Your task to perform on an android device: turn notification dots on Image 0: 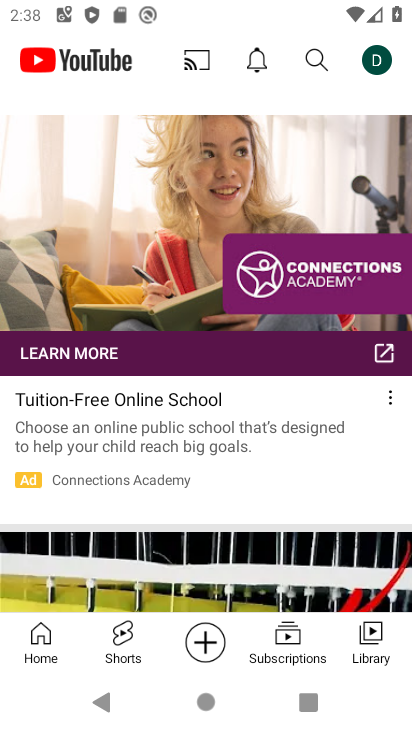
Step 0: press home button
Your task to perform on an android device: turn notification dots on Image 1: 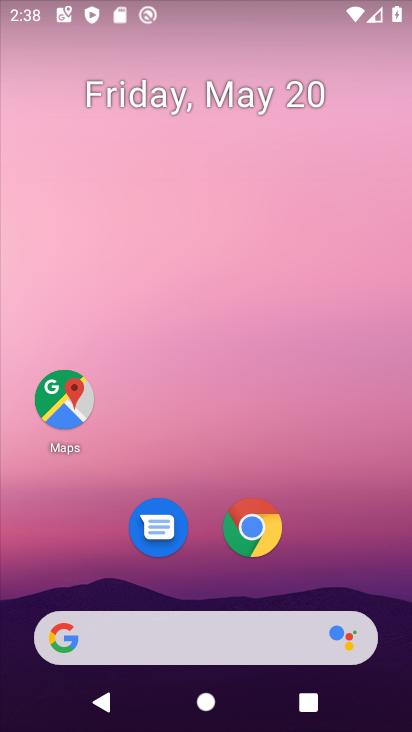
Step 1: drag from (239, 599) to (397, 133)
Your task to perform on an android device: turn notification dots on Image 2: 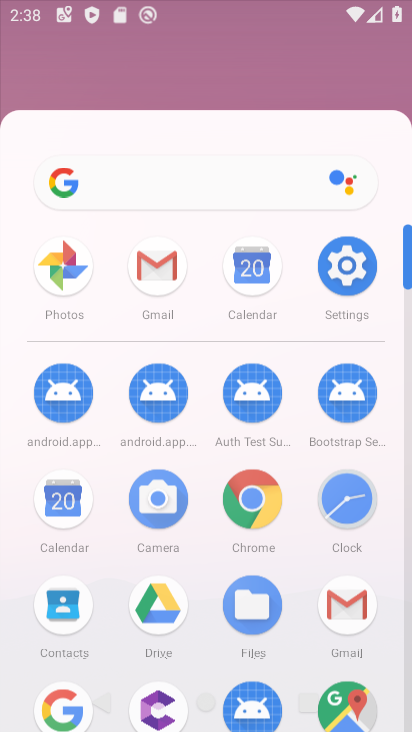
Step 2: click (348, 156)
Your task to perform on an android device: turn notification dots on Image 3: 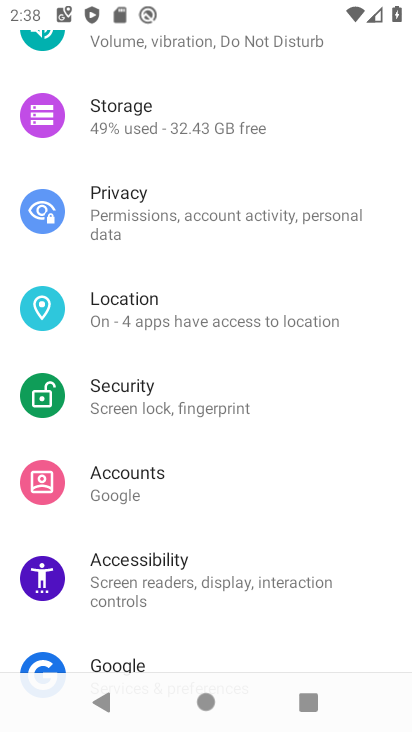
Step 3: drag from (313, 116) to (278, 543)
Your task to perform on an android device: turn notification dots on Image 4: 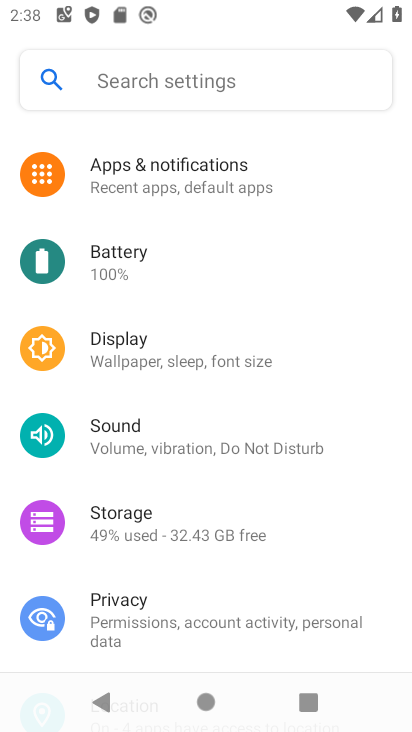
Step 4: click (275, 181)
Your task to perform on an android device: turn notification dots on Image 5: 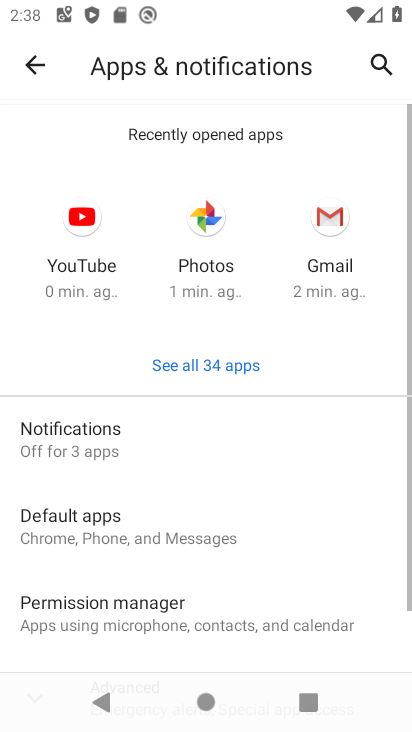
Step 5: drag from (285, 582) to (256, 13)
Your task to perform on an android device: turn notification dots on Image 6: 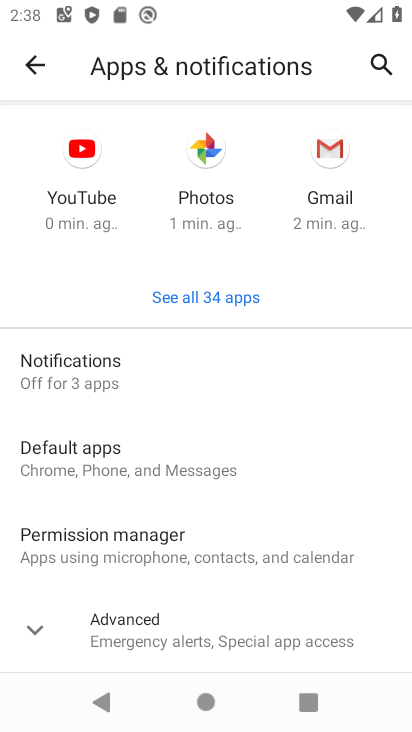
Step 6: click (207, 354)
Your task to perform on an android device: turn notification dots on Image 7: 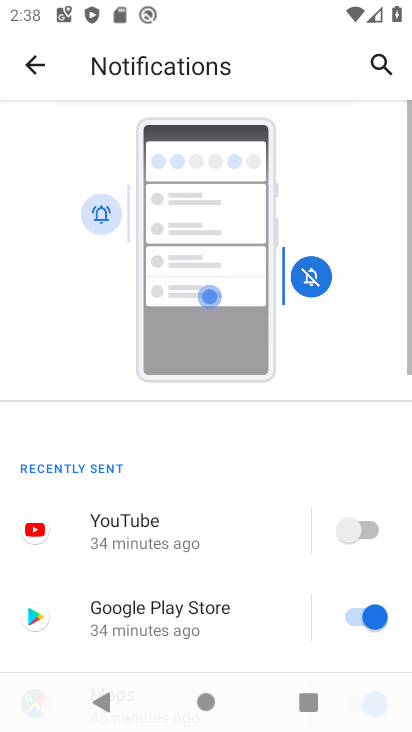
Step 7: drag from (274, 584) to (261, 9)
Your task to perform on an android device: turn notification dots on Image 8: 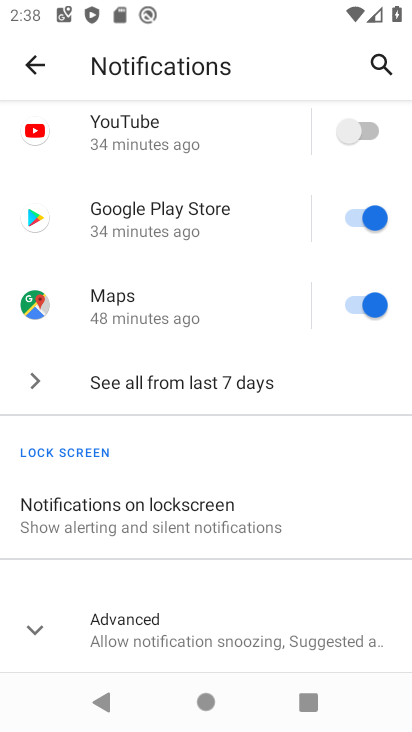
Step 8: drag from (200, 477) to (199, 30)
Your task to perform on an android device: turn notification dots on Image 9: 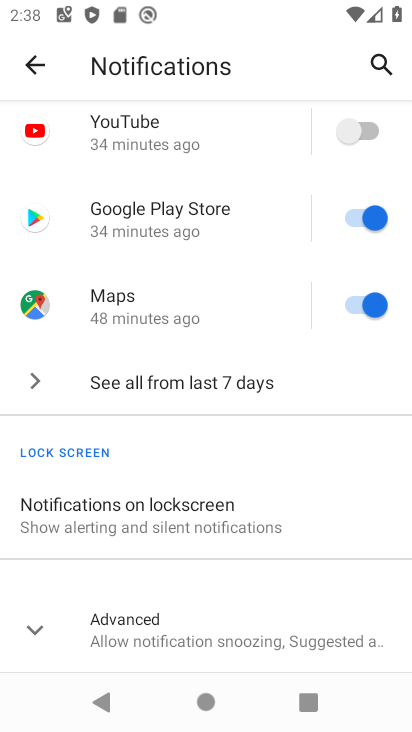
Step 9: click (275, 660)
Your task to perform on an android device: turn notification dots on Image 10: 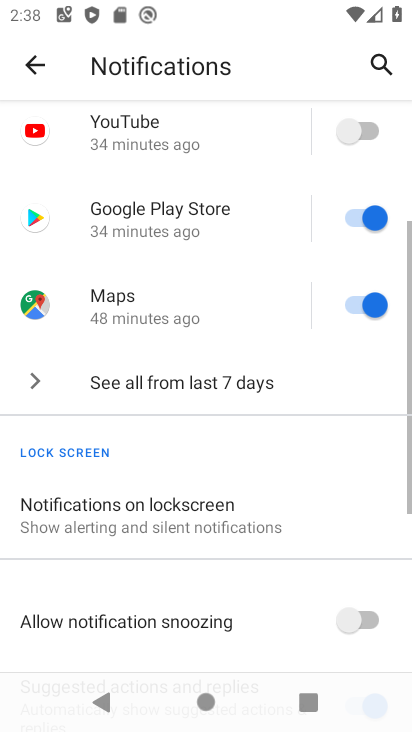
Step 10: task complete